Your task to perform on an android device: toggle pop-ups in chrome Image 0: 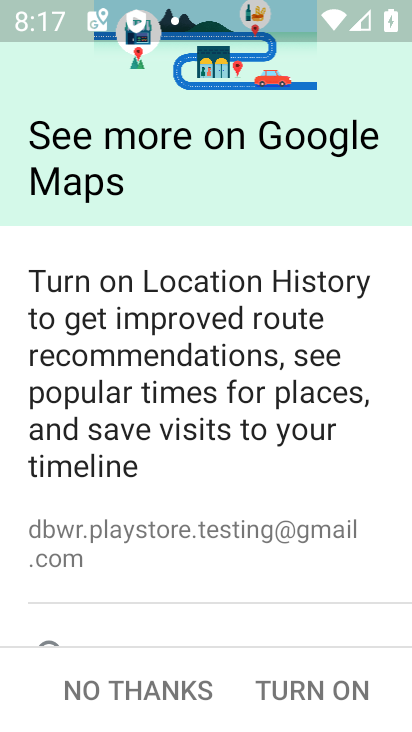
Step 0: press home button
Your task to perform on an android device: toggle pop-ups in chrome Image 1: 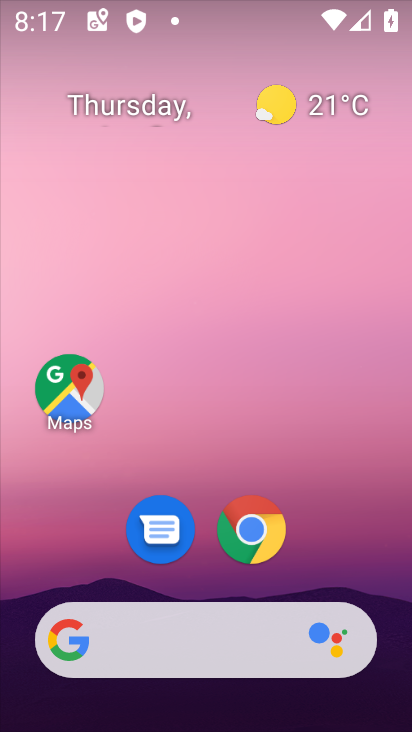
Step 1: click (259, 531)
Your task to perform on an android device: toggle pop-ups in chrome Image 2: 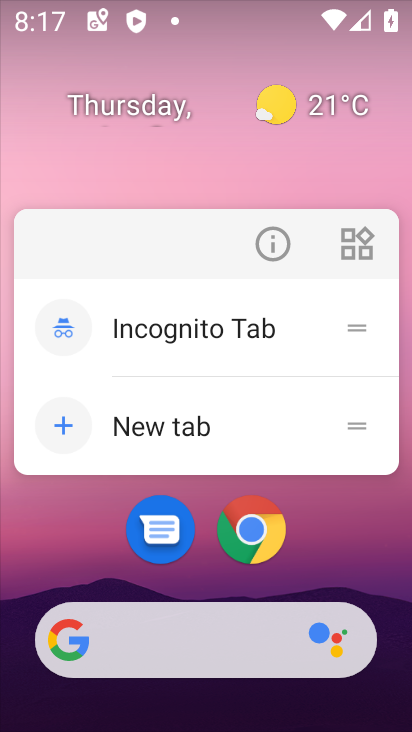
Step 2: click (251, 505)
Your task to perform on an android device: toggle pop-ups in chrome Image 3: 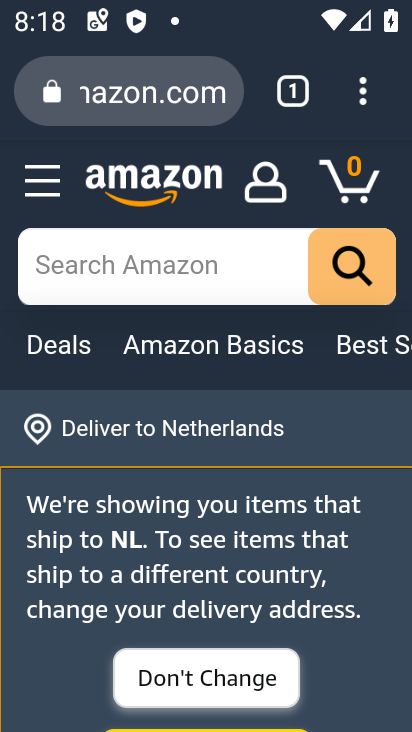
Step 3: click (365, 91)
Your task to perform on an android device: toggle pop-ups in chrome Image 4: 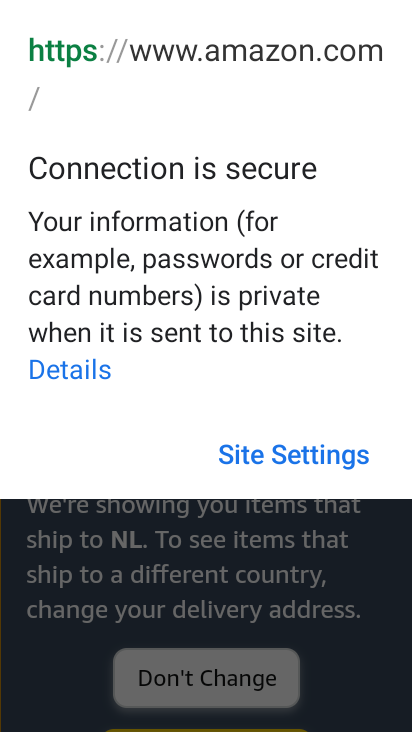
Step 4: click (253, 556)
Your task to perform on an android device: toggle pop-ups in chrome Image 5: 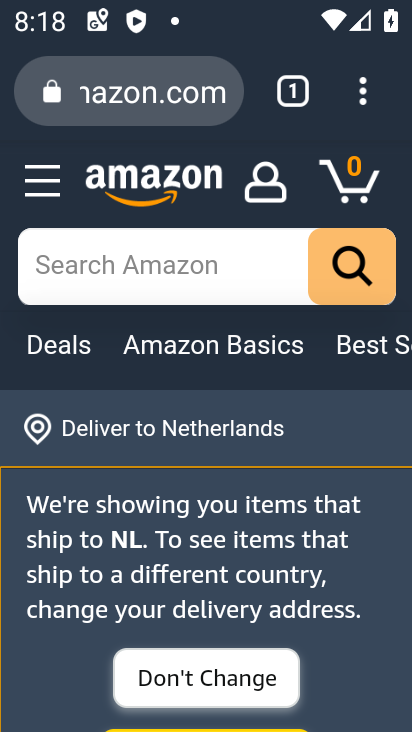
Step 5: click (366, 87)
Your task to perform on an android device: toggle pop-ups in chrome Image 6: 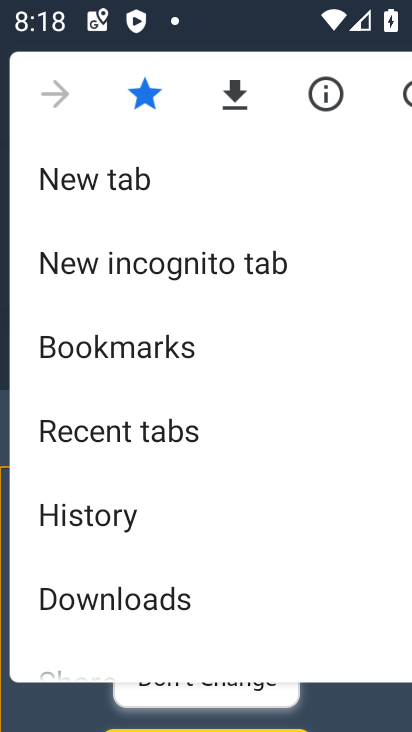
Step 6: drag from (221, 606) to (204, 132)
Your task to perform on an android device: toggle pop-ups in chrome Image 7: 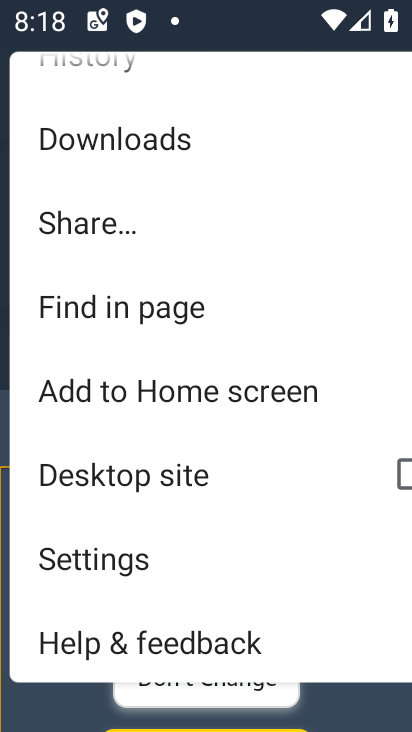
Step 7: click (106, 547)
Your task to perform on an android device: toggle pop-ups in chrome Image 8: 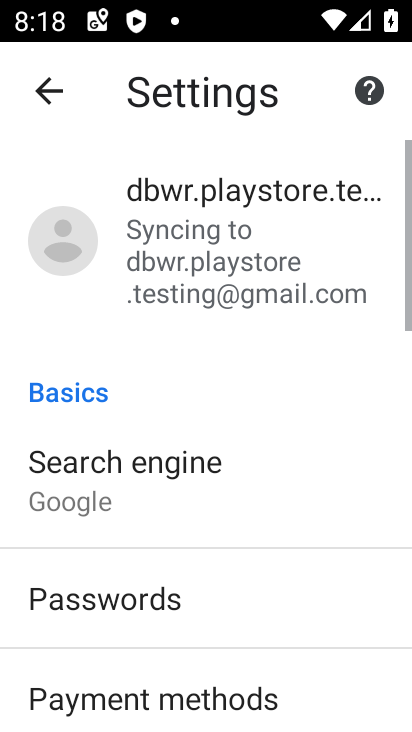
Step 8: drag from (282, 623) to (244, 45)
Your task to perform on an android device: toggle pop-ups in chrome Image 9: 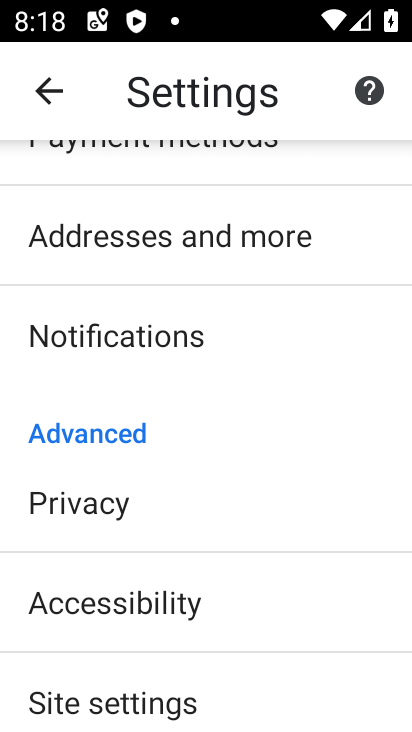
Step 9: click (168, 700)
Your task to perform on an android device: toggle pop-ups in chrome Image 10: 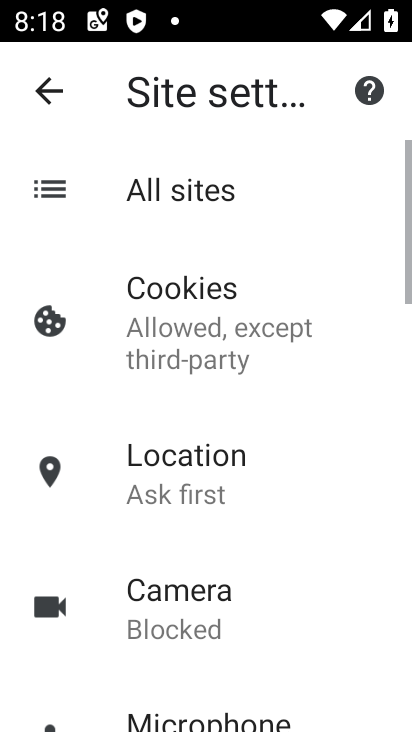
Step 10: drag from (306, 680) to (288, 40)
Your task to perform on an android device: toggle pop-ups in chrome Image 11: 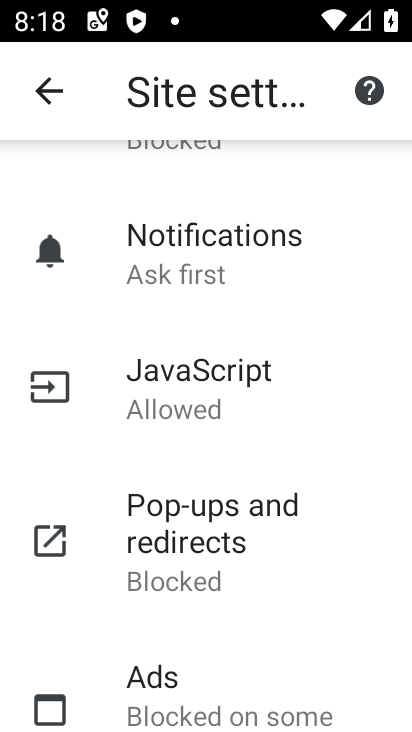
Step 11: click (265, 540)
Your task to perform on an android device: toggle pop-ups in chrome Image 12: 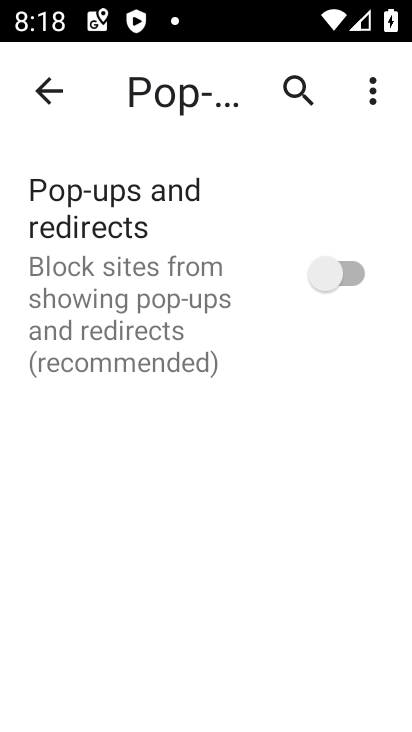
Step 12: click (343, 267)
Your task to perform on an android device: toggle pop-ups in chrome Image 13: 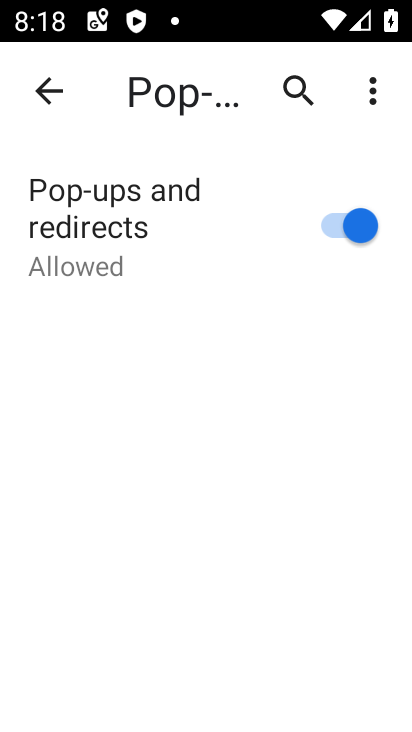
Step 13: task complete